Your task to perform on an android device: Go to sound settings Image 0: 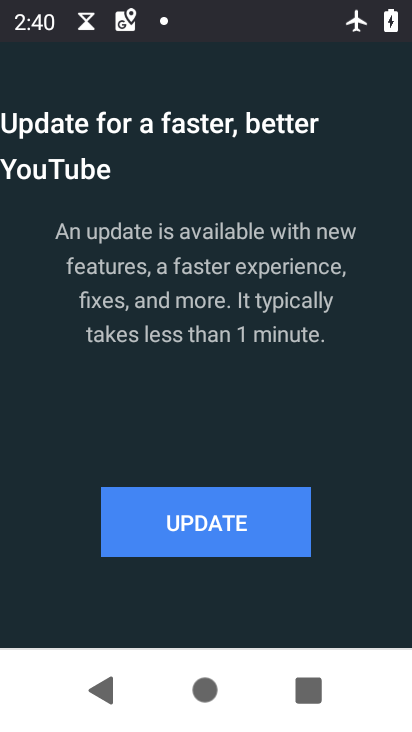
Step 0: press home button
Your task to perform on an android device: Go to sound settings Image 1: 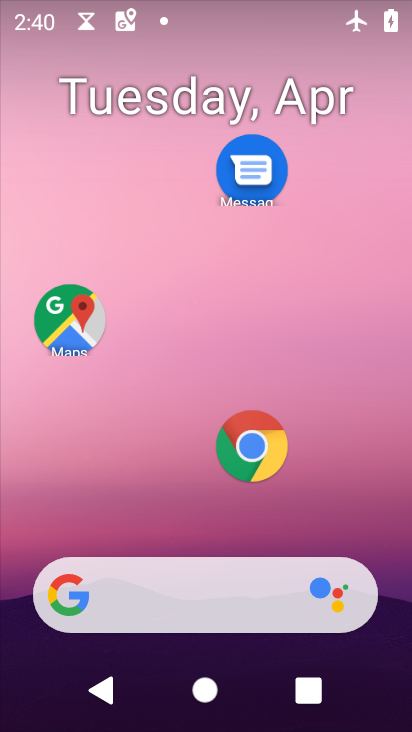
Step 1: drag from (188, 355) to (229, 0)
Your task to perform on an android device: Go to sound settings Image 2: 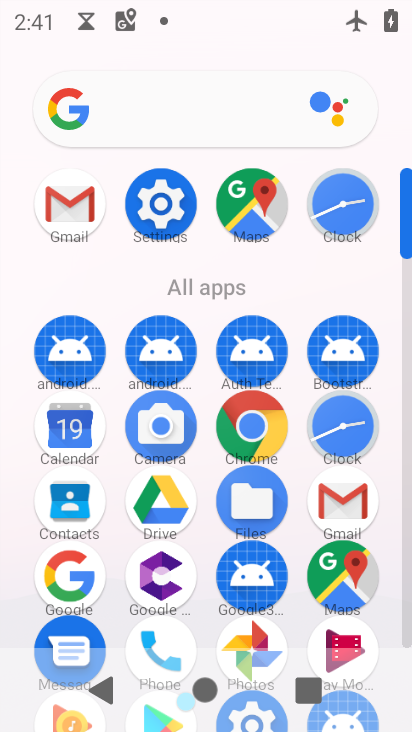
Step 2: click (164, 222)
Your task to perform on an android device: Go to sound settings Image 3: 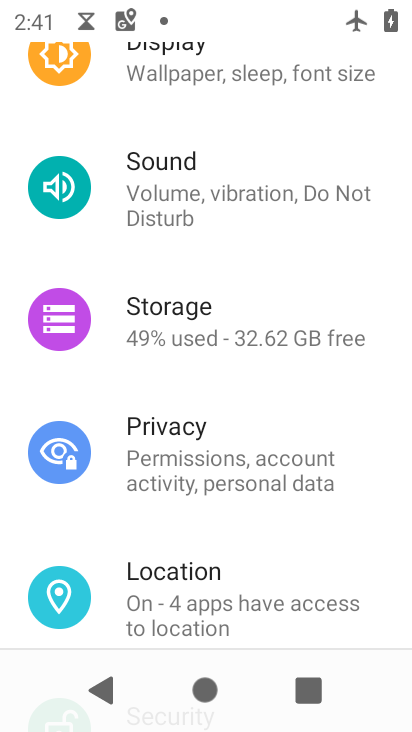
Step 3: click (209, 188)
Your task to perform on an android device: Go to sound settings Image 4: 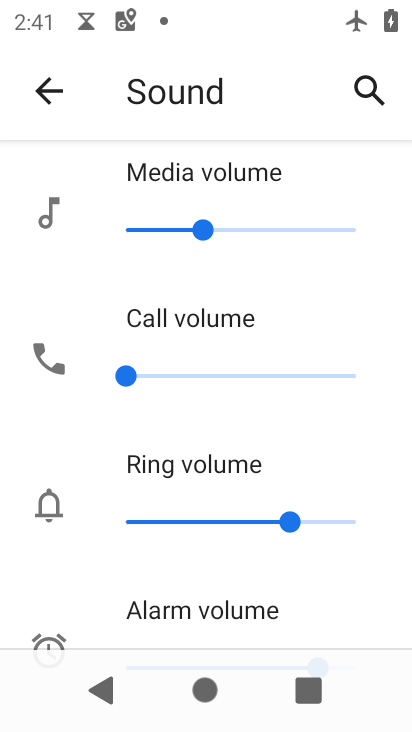
Step 4: task complete